Your task to perform on an android device: See recent photos Image 0: 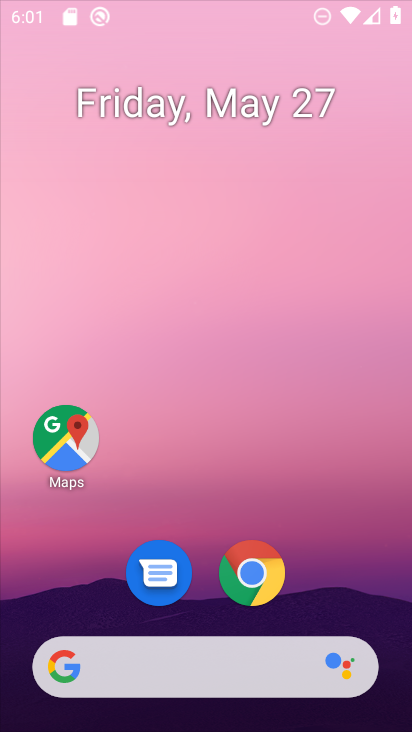
Step 0: press home button
Your task to perform on an android device: See recent photos Image 1: 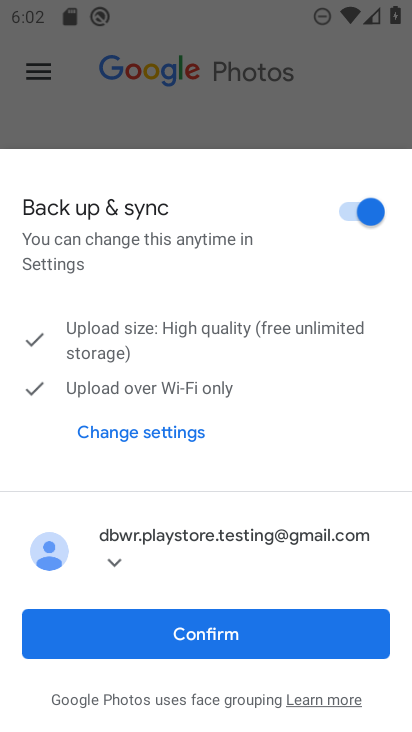
Step 1: click (206, 627)
Your task to perform on an android device: See recent photos Image 2: 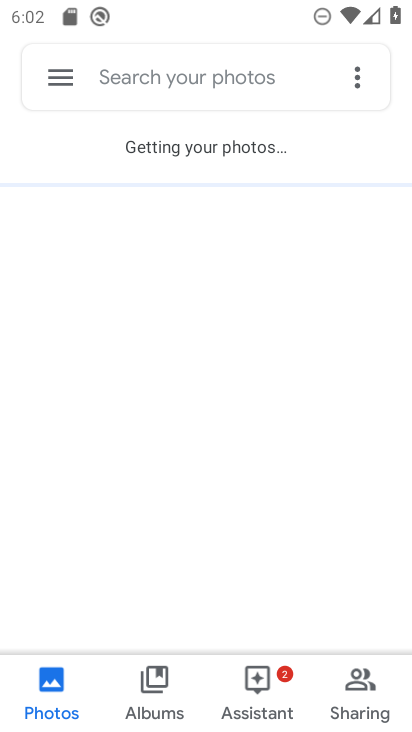
Step 2: press home button
Your task to perform on an android device: See recent photos Image 3: 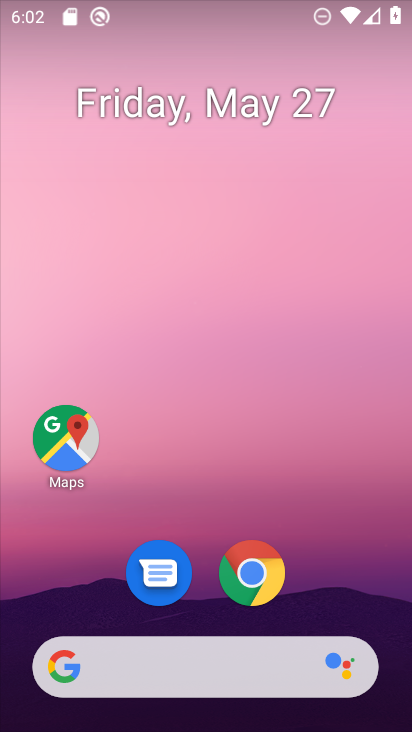
Step 3: drag from (205, 617) to (207, 3)
Your task to perform on an android device: See recent photos Image 4: 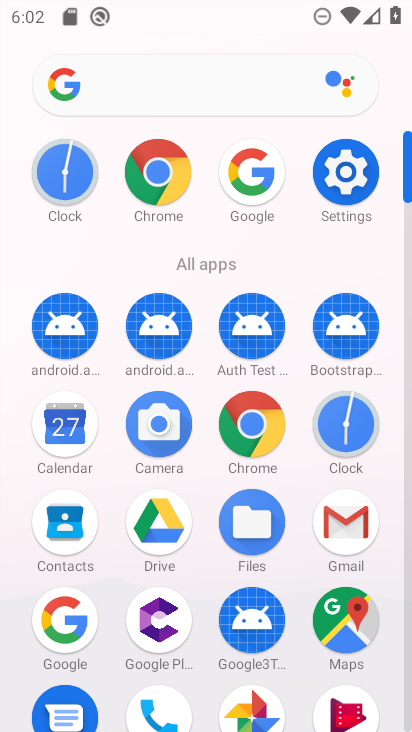
Step 4: click (256, 698)
Your task to perform on an android device: See recent photos Image 5: 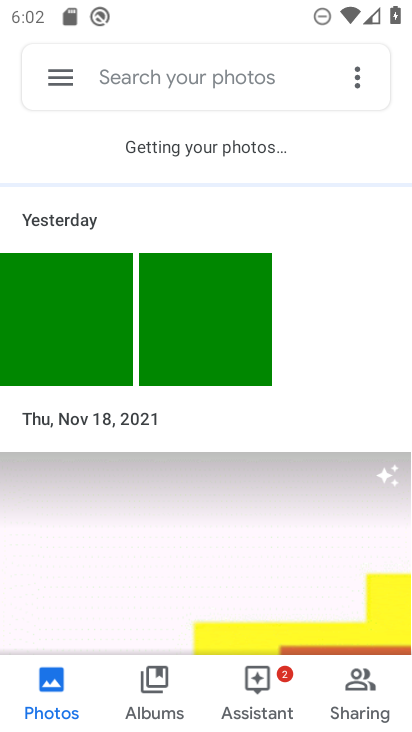
Step 5: task complete